Your task to perform on an android device: remove spam from my inbox in the gmail app Image 0: 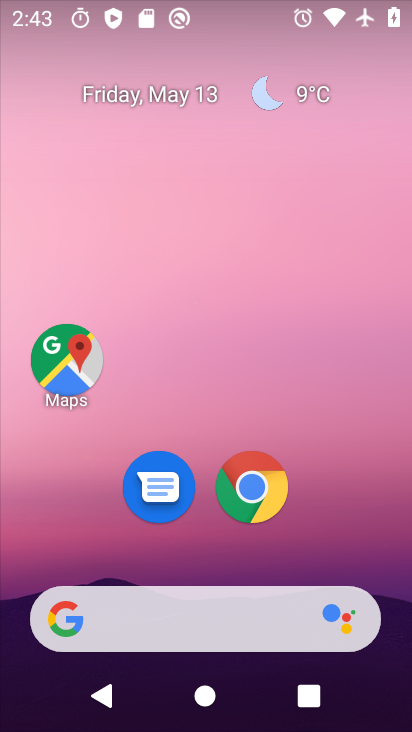
Step 0: drag from (210, 546) to (177, 59)
Your task to perform on an android device: remove spam from my inbox in the gmail app Image 1: 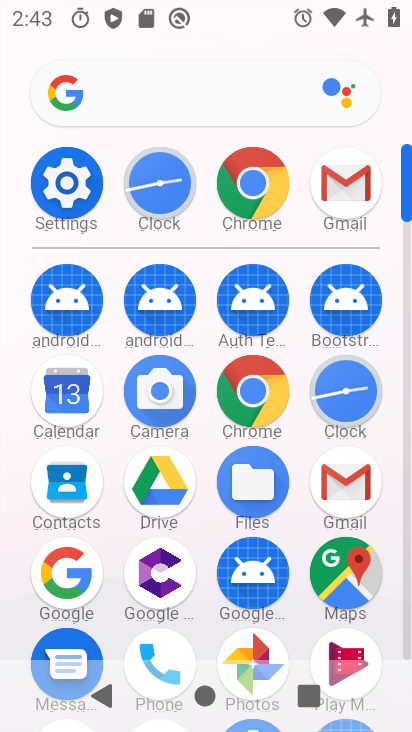
Step 1: click (356, 181)
Your task to perform on an android device: remove spam from my inbox in the gmail app Image 2: 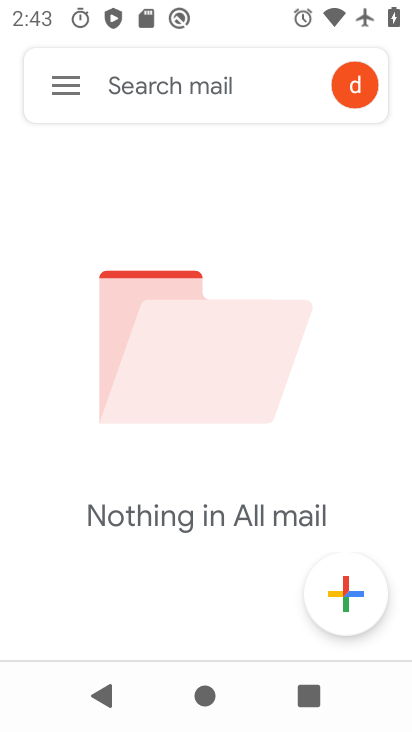
Step 2: click (70, 90)
Your task to perform on an android device: remove spam from my inbox in the gmail app Image 3: 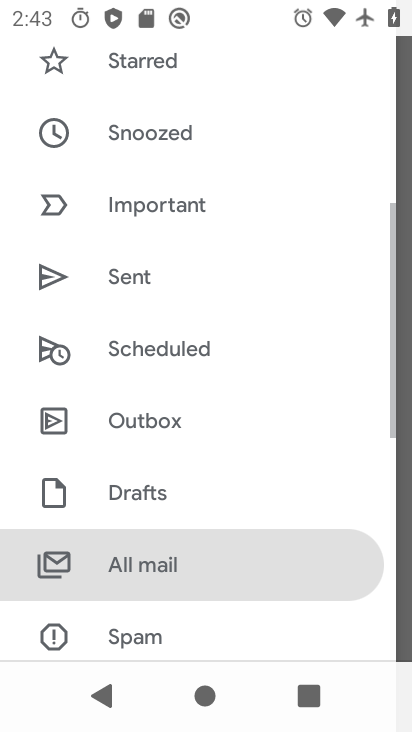
Step 3: drag from (204, 503) to (216, 183)
Your task to perform on an android device: remove spam from my inbox in the gmail app Image 4: 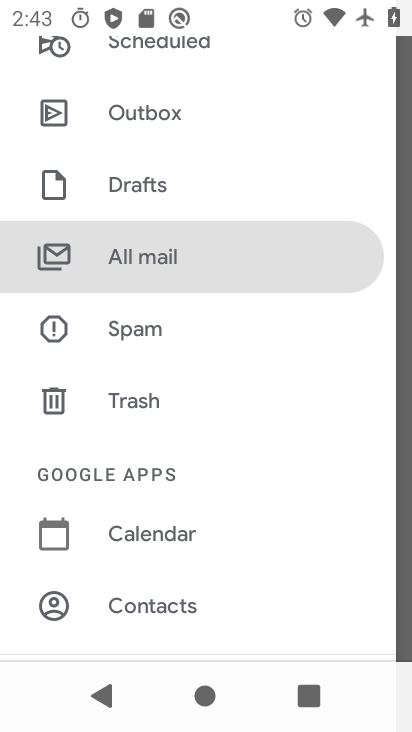
Step 4: click (143, 337)
Your task to perform on an android device: remove spam from my inbox in the gmail app Image 5: 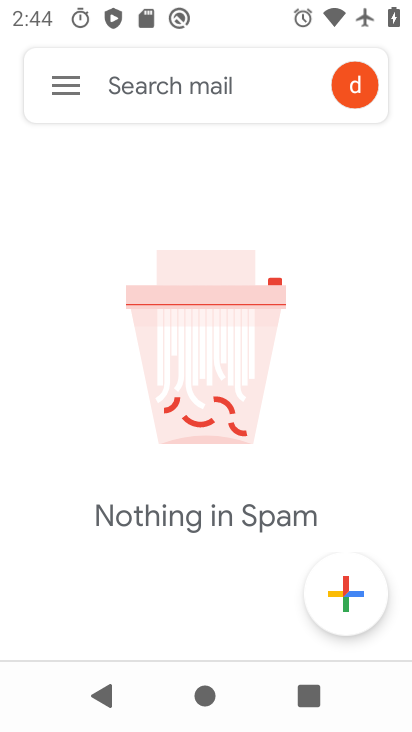
Step 5: task complete